Your task to perform on an android device: check storage Image 0: 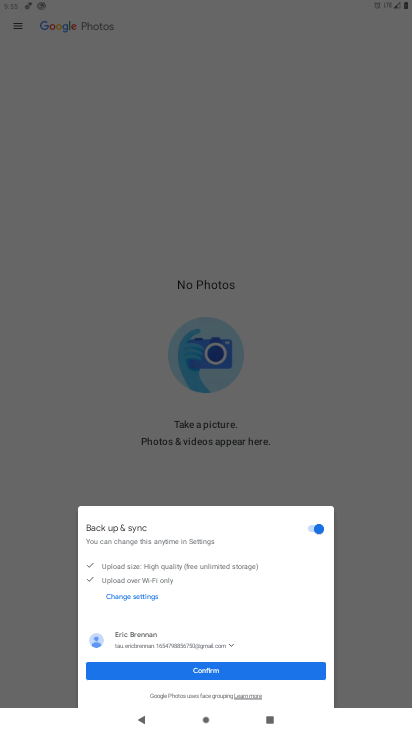
Step 0: press home button
Your task to perform on an android device: check storage Image 1: 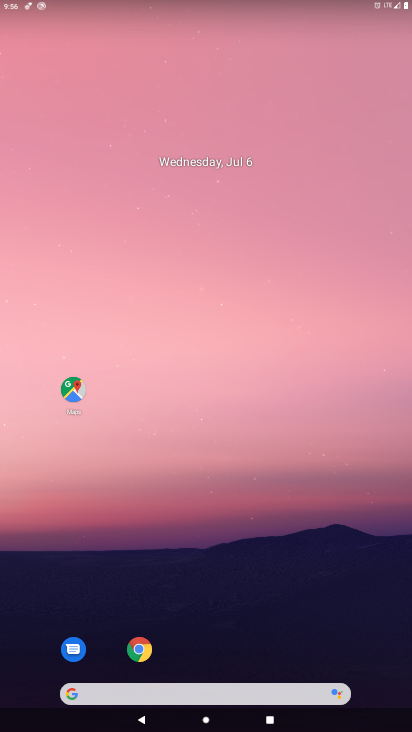
Step 1: drag from (202, 655) to (313, 86)
Your task to perform on an android device: check storage Image 2: 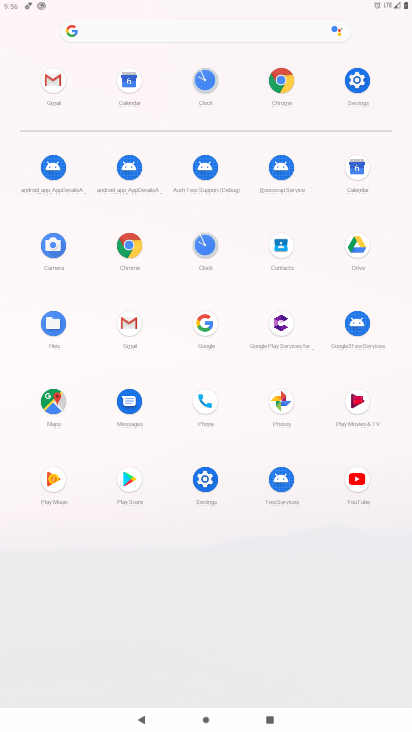
Step 2: click (357, 74)
Your task to perform on an android device: check storage Image 3: 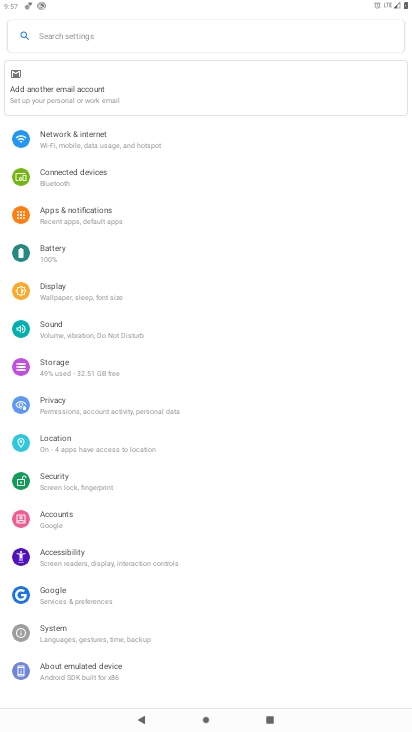
Step 3: click (66, 369)
Your task to perform on an android device: check storage Image 4: 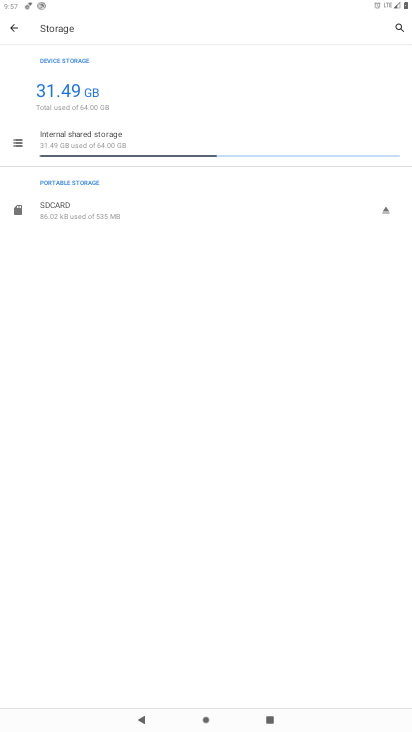
Step 4: task complete